Your task to perform on an android device: toggle improve location accuracy Image 0: 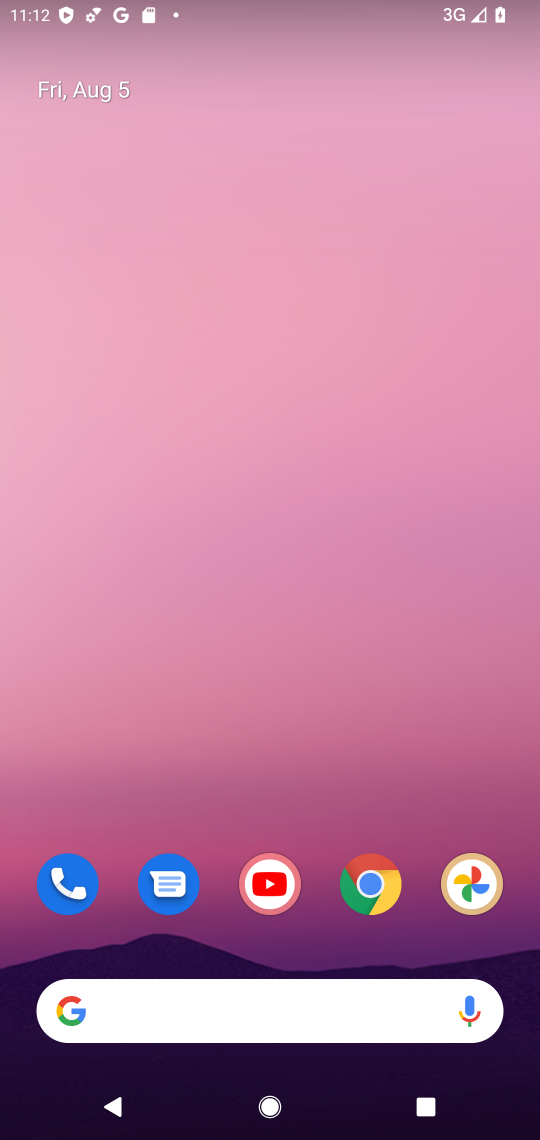
Step 0: drag from (302, 817) to (275, 233)
Your task to perform on an android device: toggle improve location accuracy Image 1: 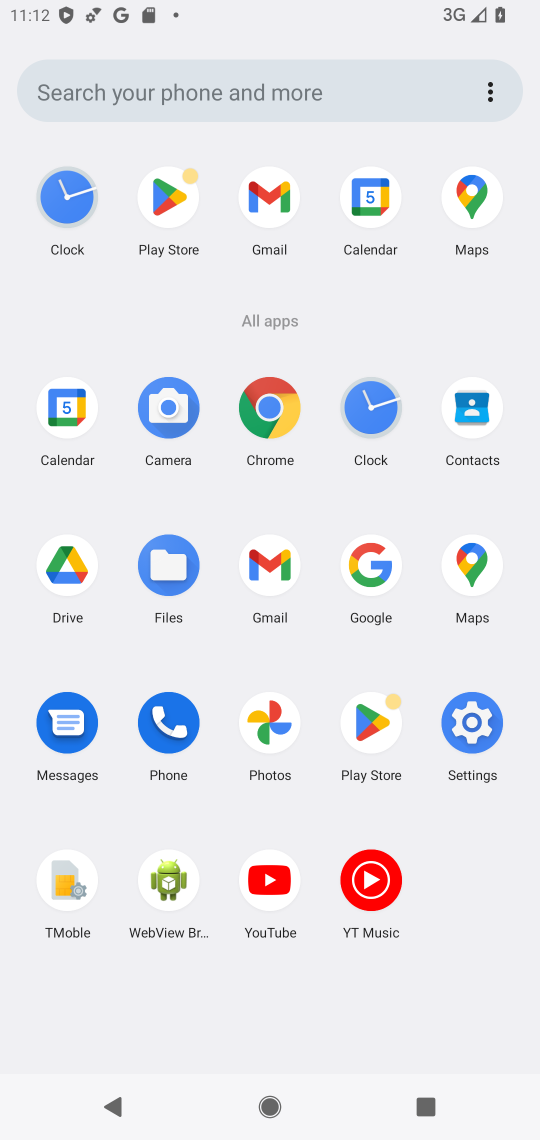
Step 1: click (466, 735)
Your task to perform on an android device: toggle improve location accuracy Image 2: 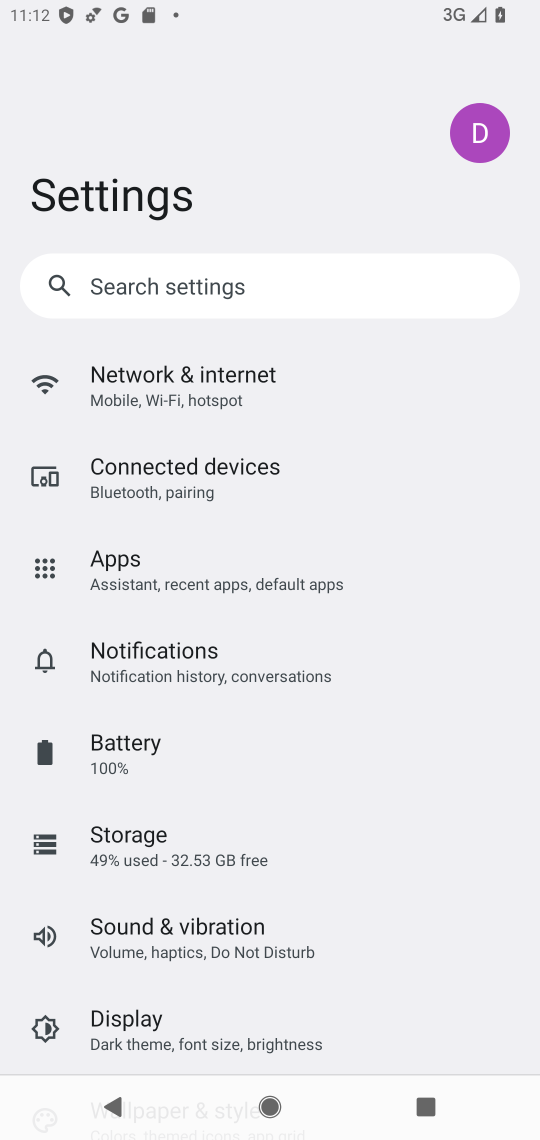
Step 2: drag from (194, 938) to (98, 345)
Your task to perform on an android device: toggle improve location accuracy Image 3: 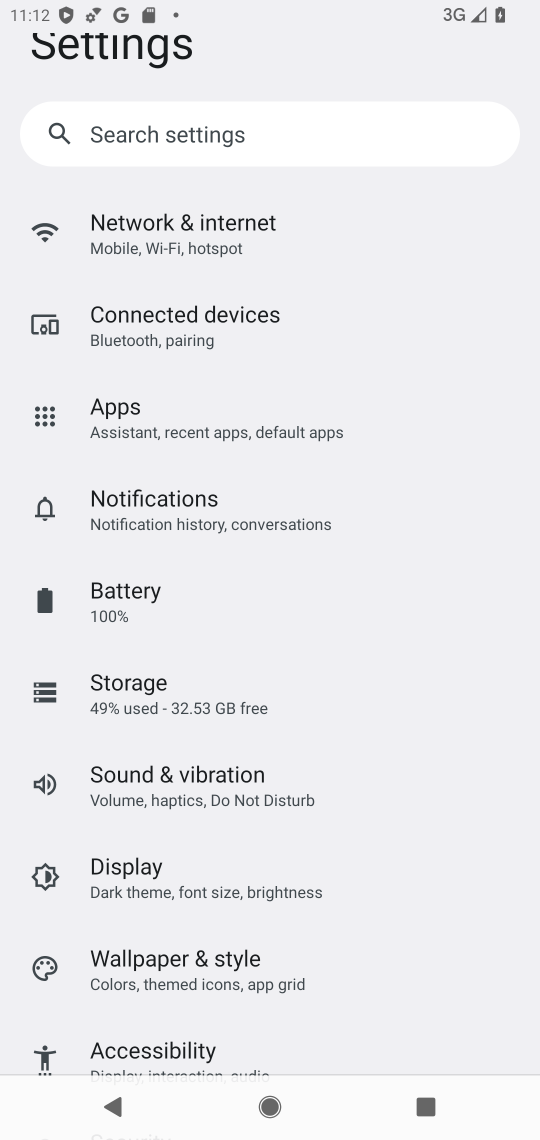
Step 3: drag from (146, 970) to (161, 568)
Your task to perform on an android device: toggle improve location accuracy Image 4: 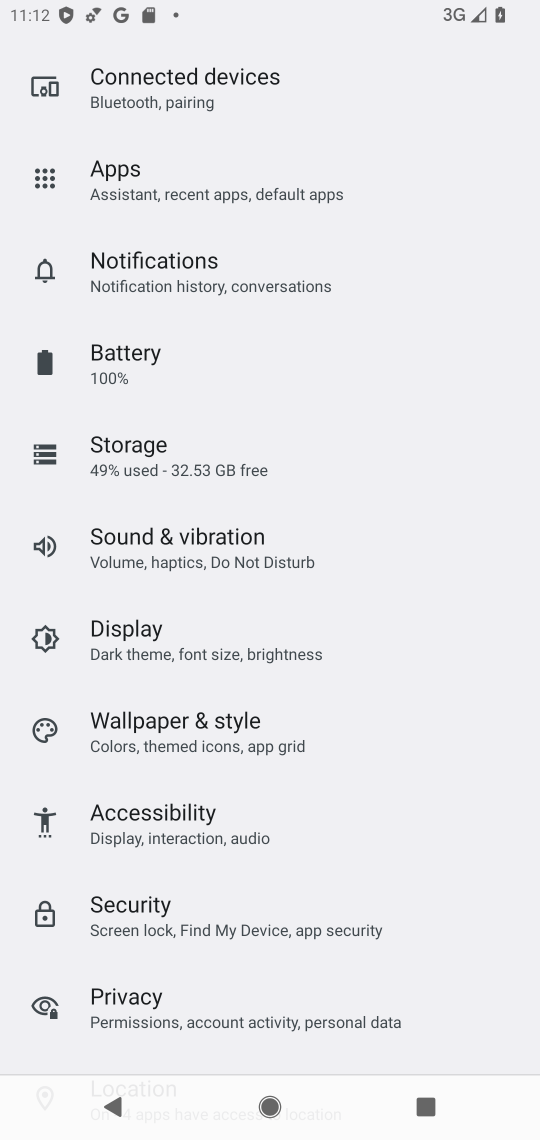
Step 4: drag from (164, 1030) to (160, 463)
Your task to perform on an android device: toggle improve location accuracy Image 5: 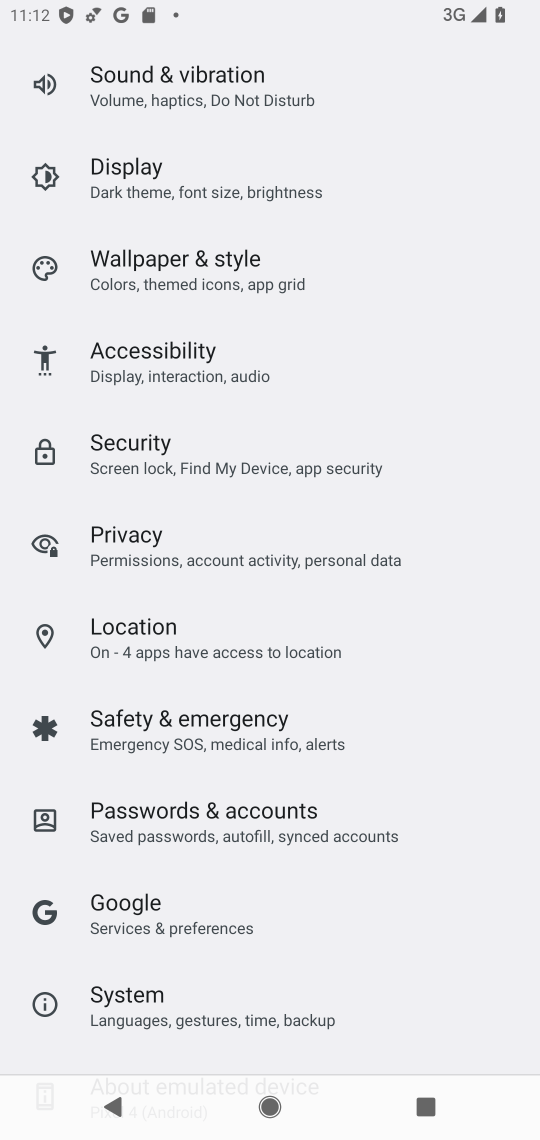
Step 5: click (173, 632)
Your task to perform on an android device: toggle improve location accuracy Image 6: 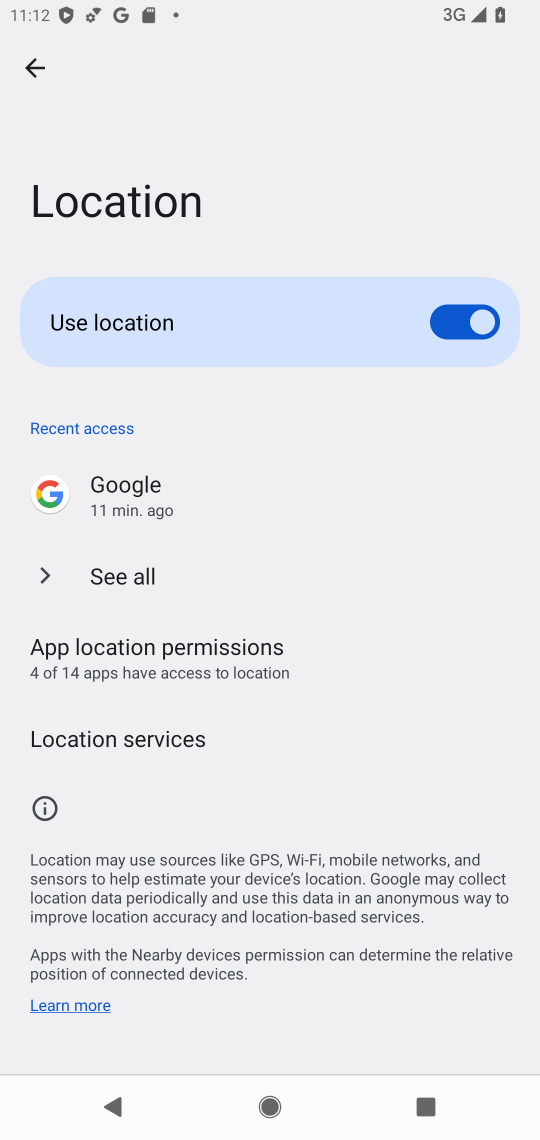
Step 6: click (137, 727)
Your task to perform on an android device: toggle improve location accuracy Image 7: 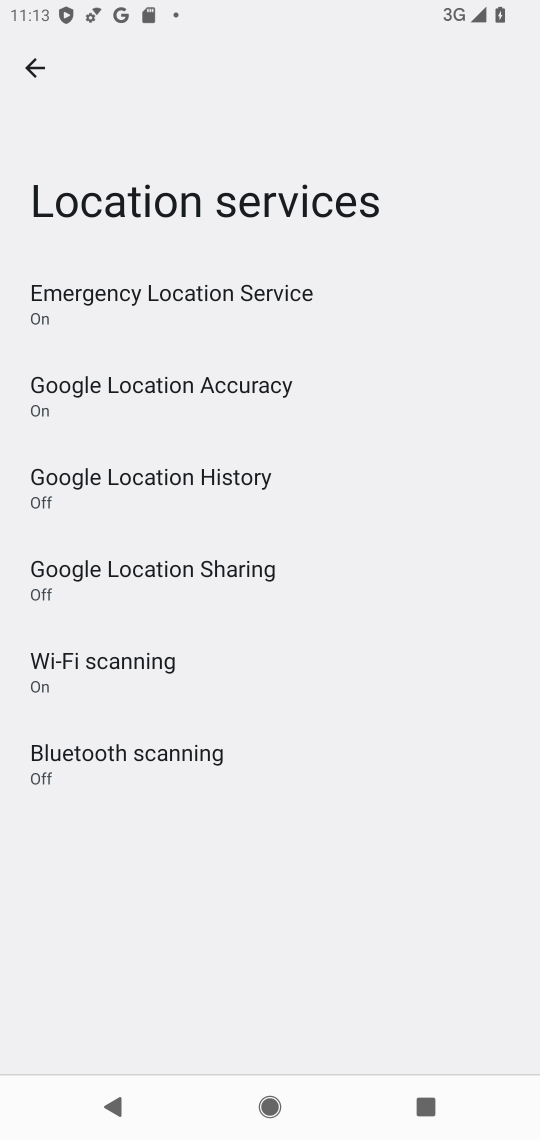
Step 7: click (249, 381)
Your task to perform on an android device: toggle improve location accuracy Image 8: 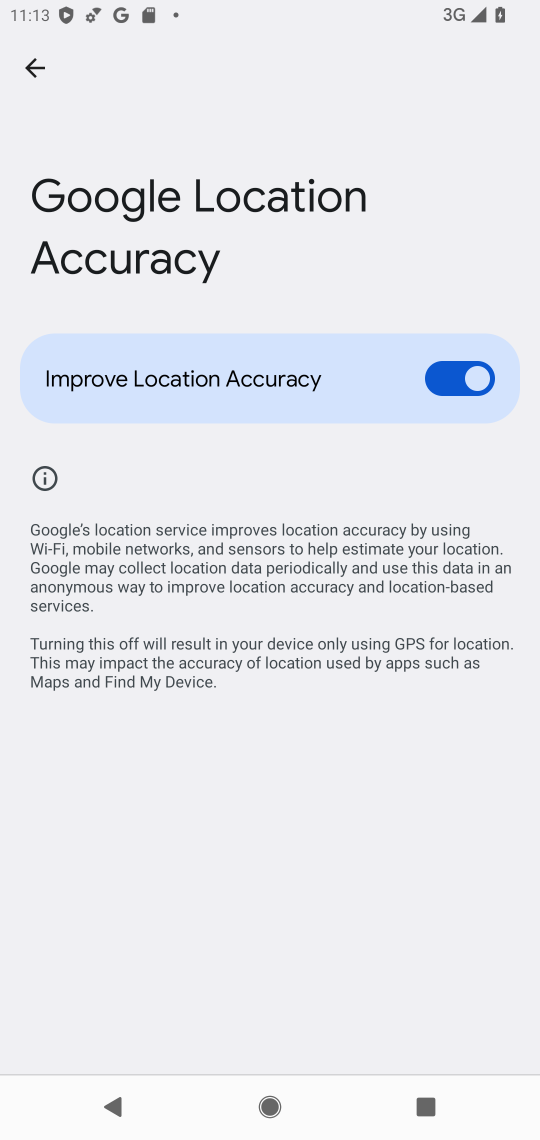
Step 8: task complete